Your task to perform on an android device: add a contact in the contacts app Image 0: 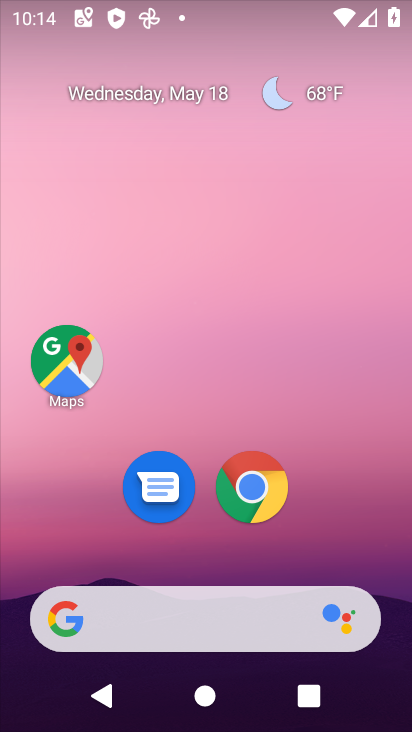
Step 0: drag from (338, 545) to (344, 188)
Your task to perform on an android device: add a contact in the contacts app Image 1: 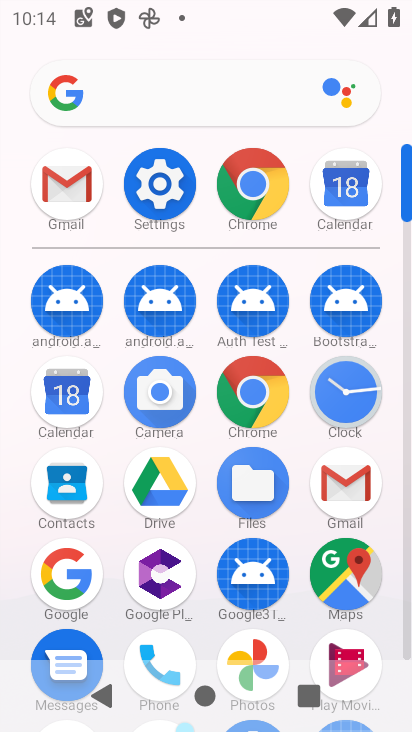
Step 1: click (74, 494)
Your task to perform on an android device: add a contact in the contacts app Image 2: 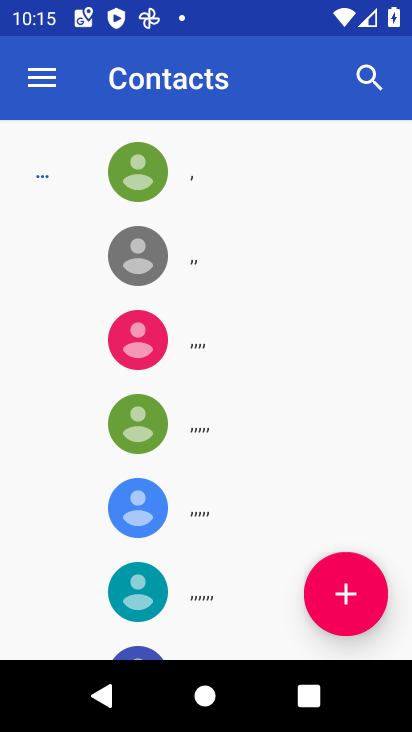
Step 2: click (343, 605)
Your task to perform on an android device: add a contact in the contacts app Image 3: 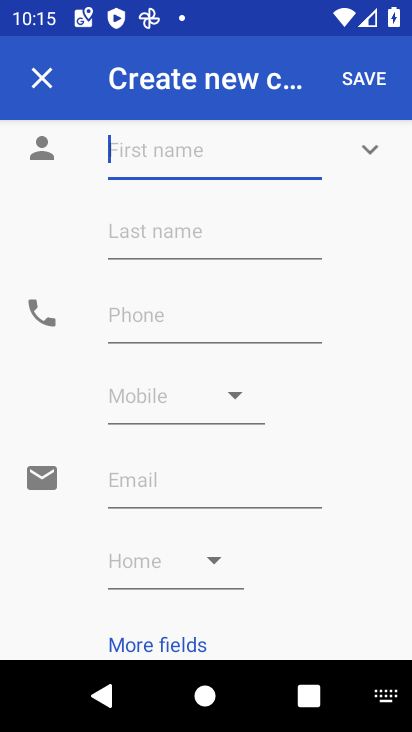
Step 3: click (176, 160)
Your task to perform on an android device: add a contact in the contacts app Image 4: 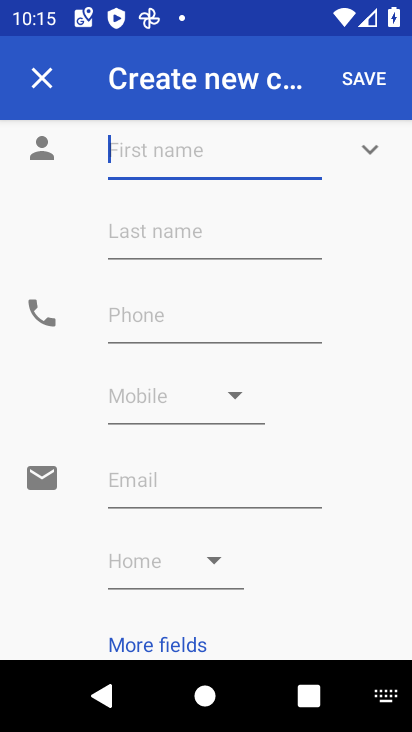
Step 4: type "wnsi"
Your task to perform on an android device: add a contact in the contacts app Image 5: 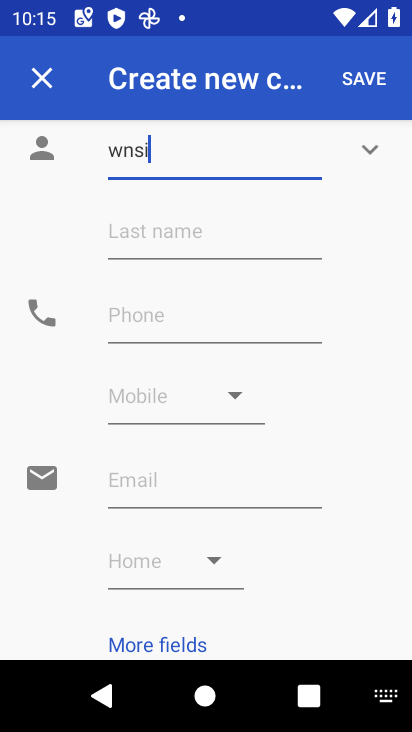
Step 5: click (207, 322)
Your task to perform on an android device: add a contact in the contacts app Image 6: 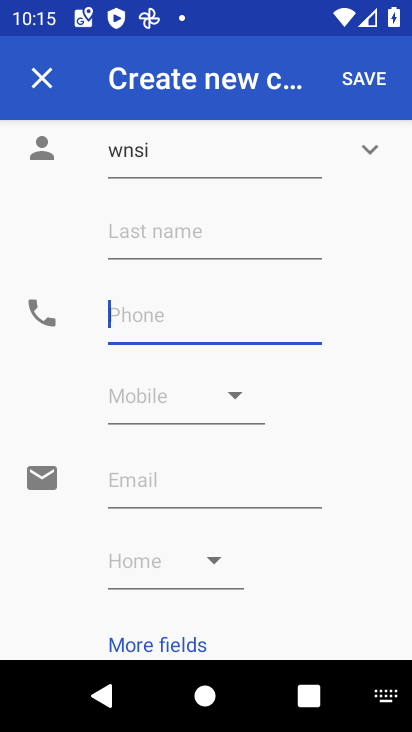
Step 6: type "29930290390"
Your task to perform on an android device: add a contact in the contacts app Image 7: 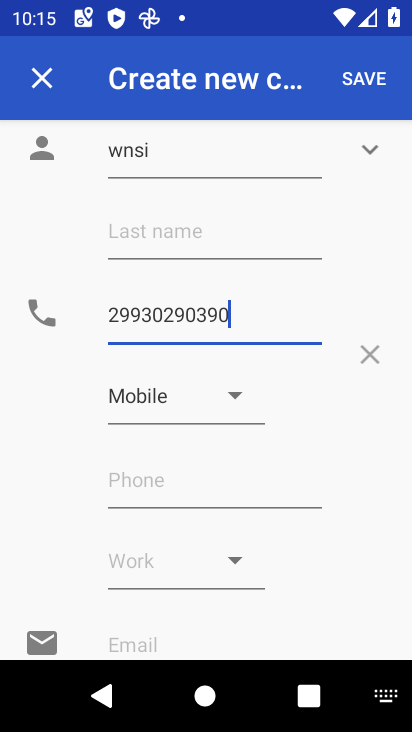
Step 7: click (384, 72)
Your task to perform on an android device: add a contact in the contacts app Image 8: 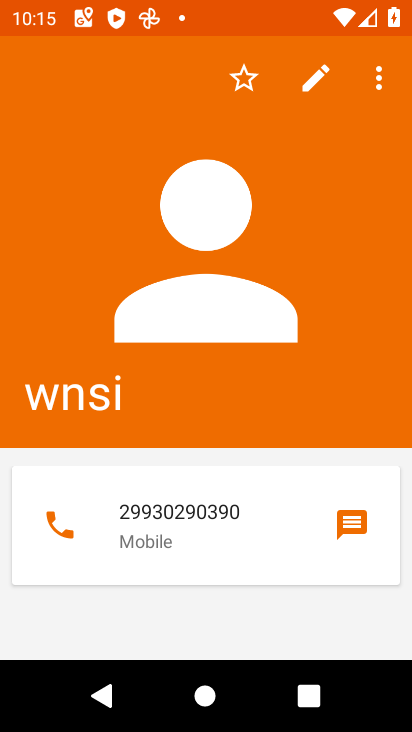
Step 8: task complete